Your task to perform on an android device: Turn on the flashlight Image 0: 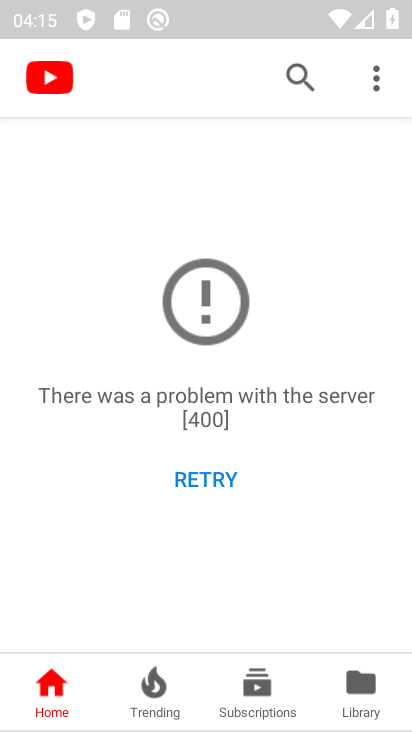
Step 0: press home button
Your task to perform on an android device: Turn on the flashlight Image 1: 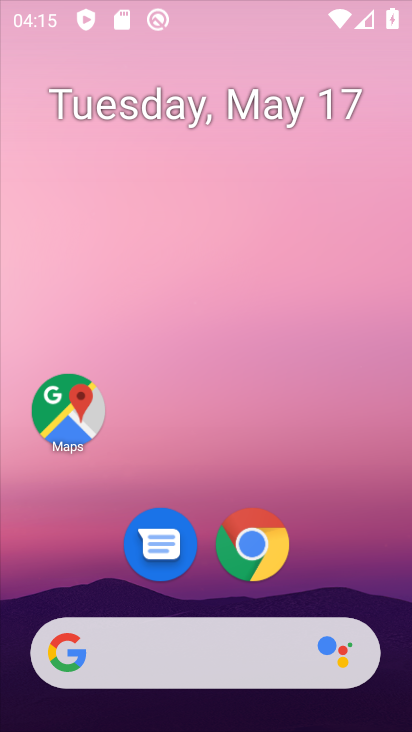
Step 1: task complete